Your task to perform on an android device: Open settings on Google Maps Image 0: 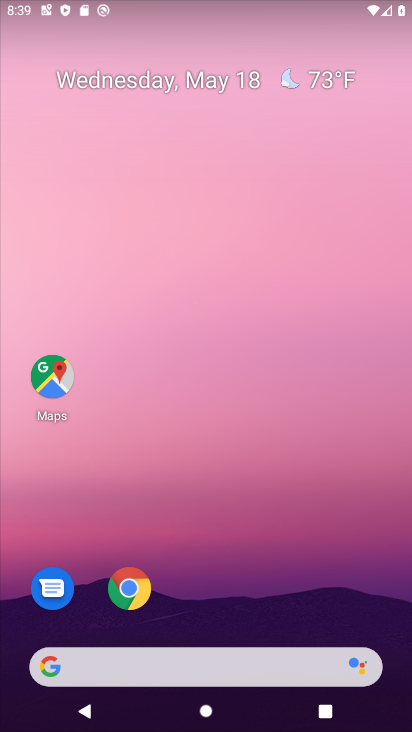
Step 0: drag from (385, 570) to (347, 141)
Your task to perform on an android device: Open settings on Google Maps Image 1: 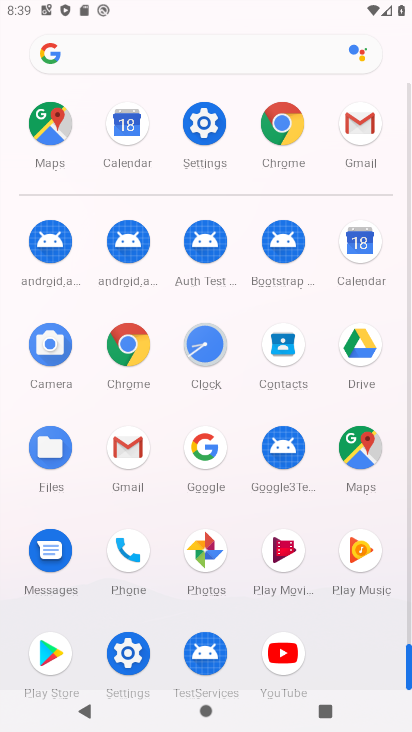
Step 1: click (353, 460)
Your task to perform on an android device: Open settings on Google Maps Image 2: 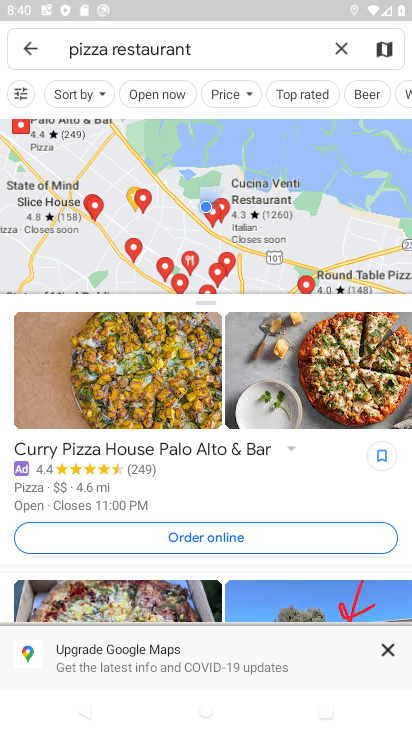
Step 2: click (39, 57)
Your task to perform on an android device: Open settings on Google Maps Image 3: 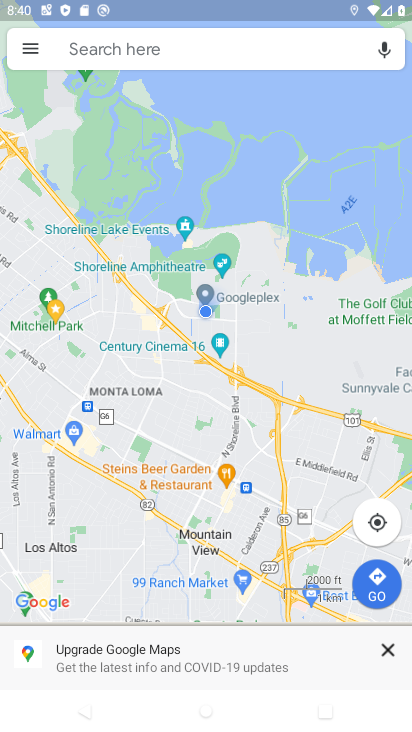
Step 3: click (39, 56)
Your task to perform on an android device: Open settings on Google Maps Image 4: 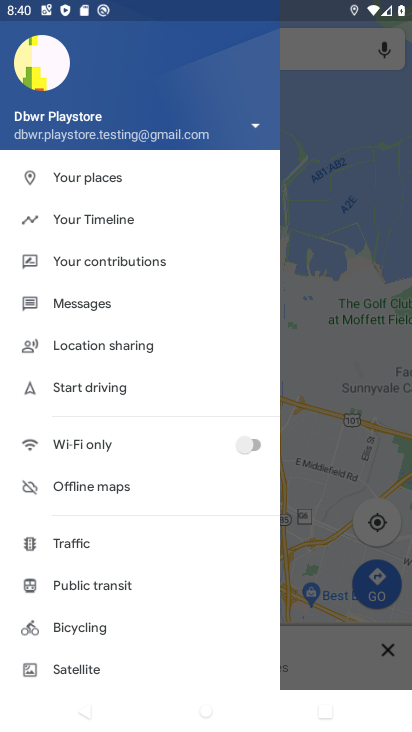
Step 4: drag from (132, 644) to (161, 292)
Your task to perform on an android device: Open settings on Google Maps Image 5: 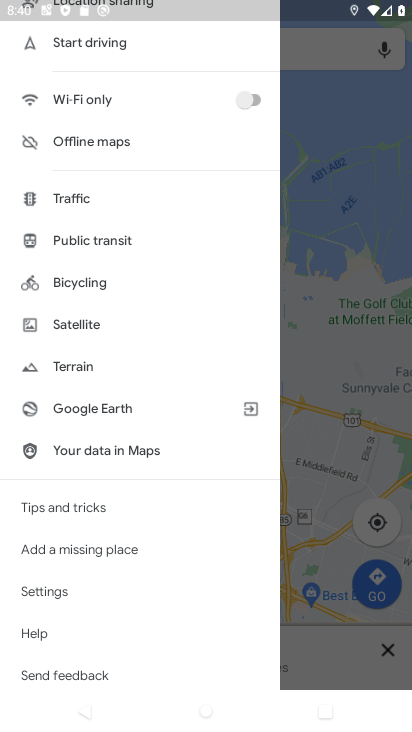
Step 5: drag from (175, 228) to (143, 609)
Your task to perform on an android device: Open settings on Google Maps Image 6: 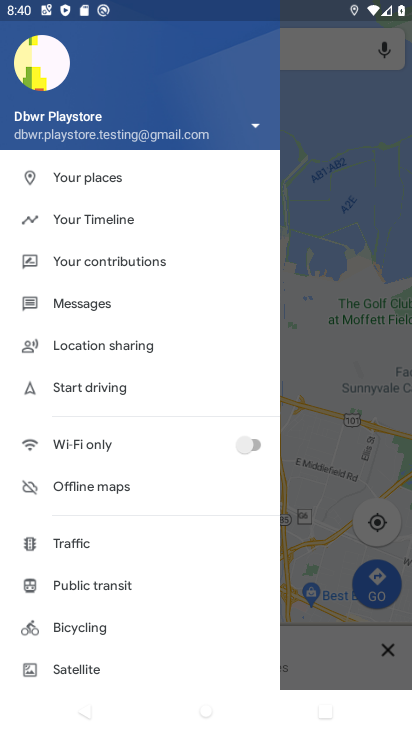
Step 6: click (99, 215)
Your task to perform on an android device: Open settings on Google Maps Image 7: 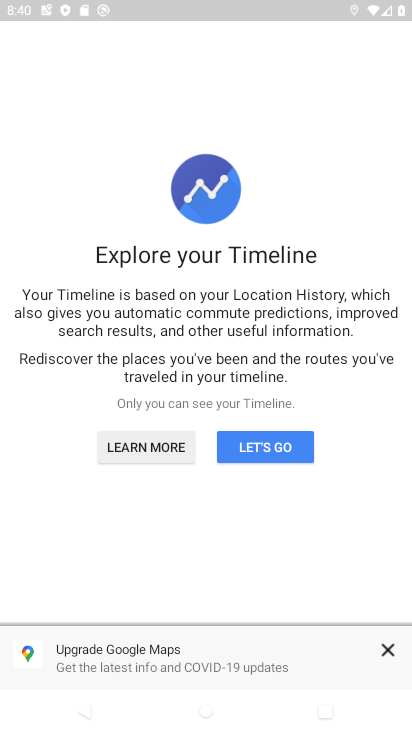
Step 7: click (234, 446)
Your task to perform on an android device: Open settings on Google Maps Image 8: 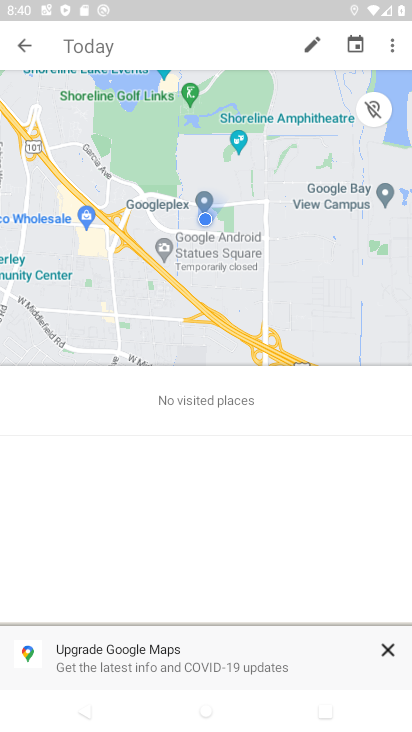
Step 8: click (391, 48)
Your task to perform on an android device: Open settings on Google Maps Image 9: 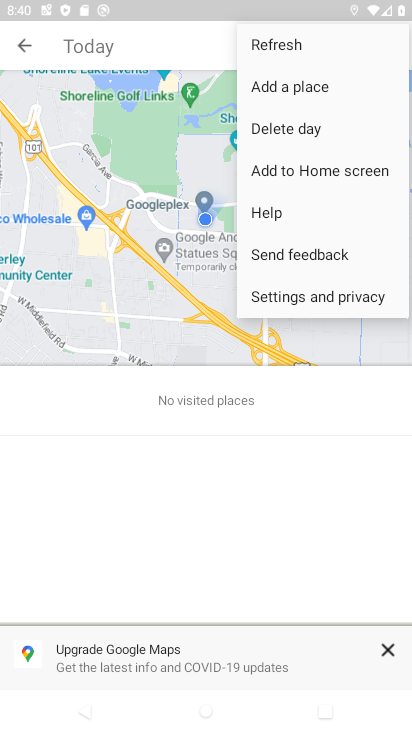
Step 9: click (267, 304)
Your task to perform on an android device: Open settings on Google Maps Image 10: 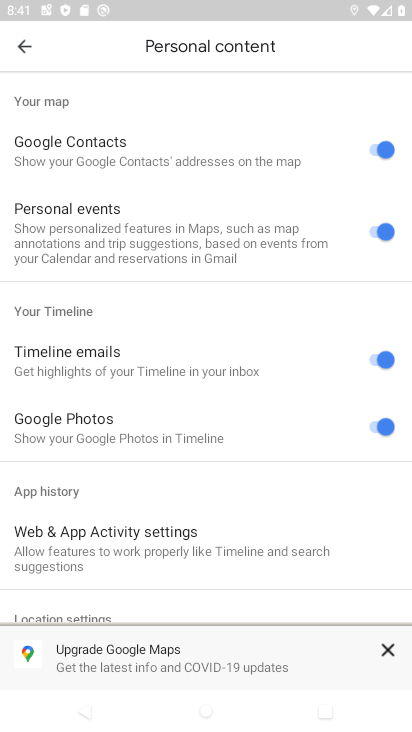
Step 10: task complete